Your task to perform on an android device: change the clock style Image 0: 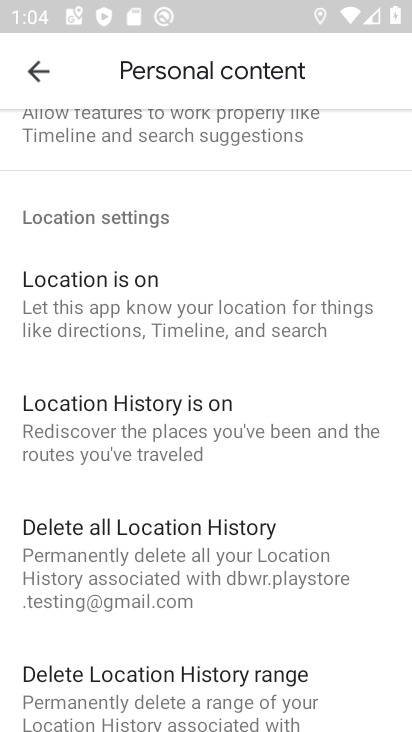
Step 0: press home button
Your task to perform on an android device: change the clock style Image 1: 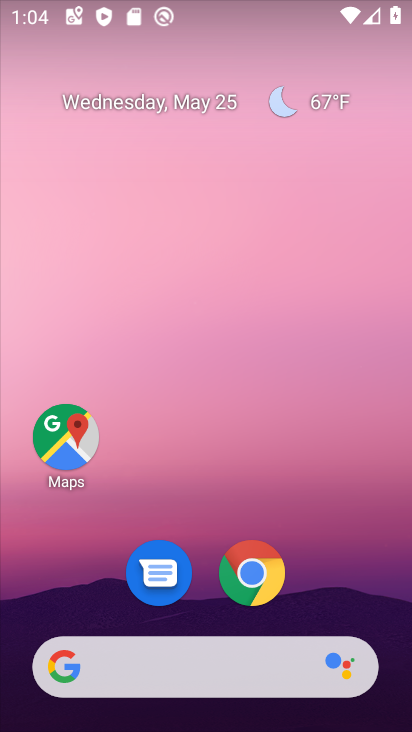
Step 1: drag from (379, 599) to (305, 89)
Your task to perform on an android device: change the clock style Image 2: 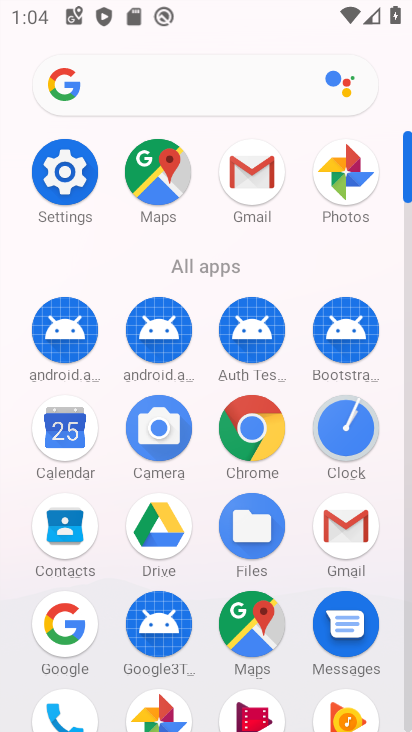
Step 2: click (409, 710)
Your task to perform on an android device: change the clock style Image 3: 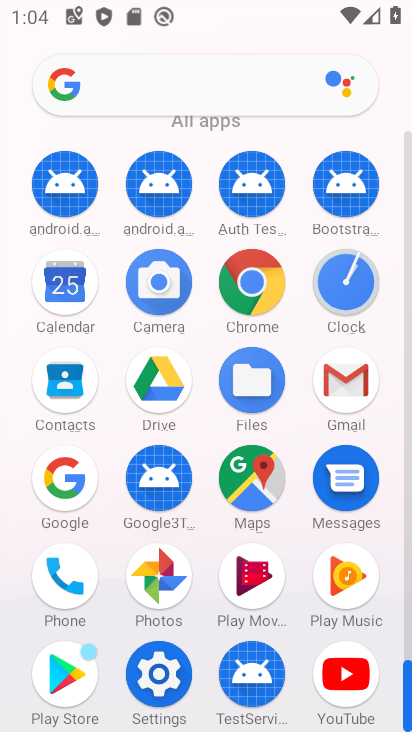
Step 3: click (345, 285)
Your task to perform on an android device: change the clock style Image 4: 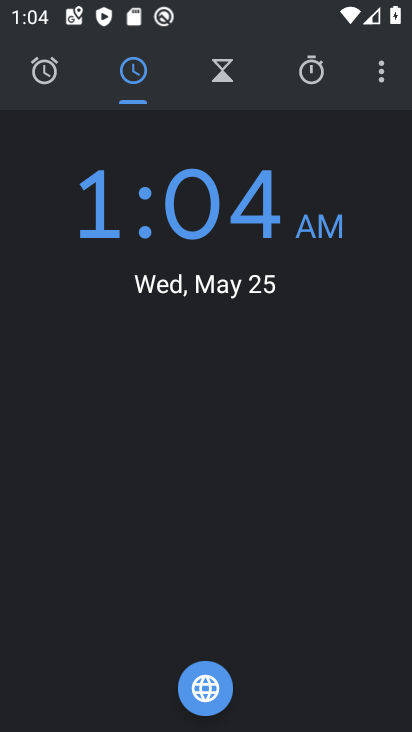
Step 4: click (380, 75)
Your task to perform on an android device: change the clock style Image 5: 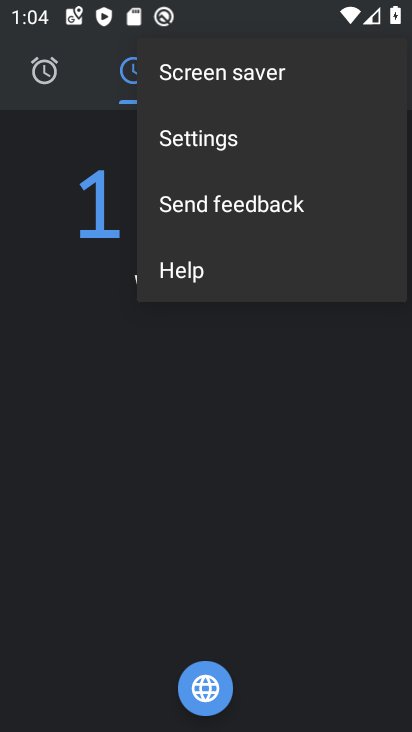
Step 5: click (200, 136)
Your task to perform on an android device: change the clock style Image 6: 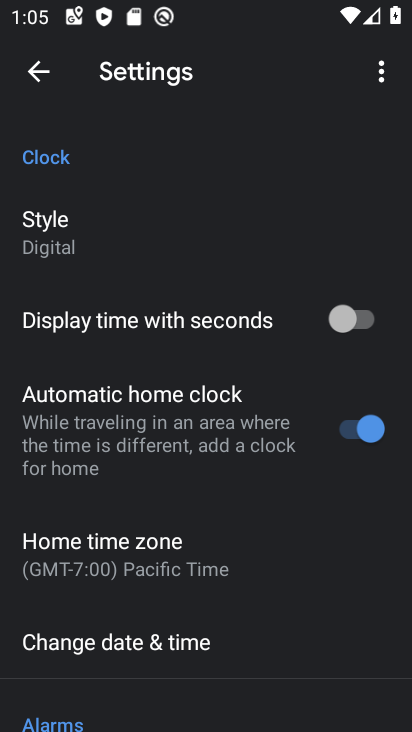
Step 6: click (31, 225)
Your task to perform on an android device: change the clock style Image 7: 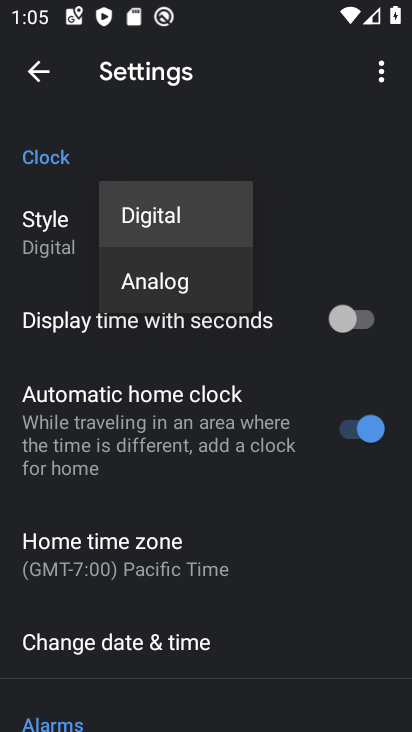
Step 7: click (148, 283)
Your task to perform on an android device: change the clock style Image 8: 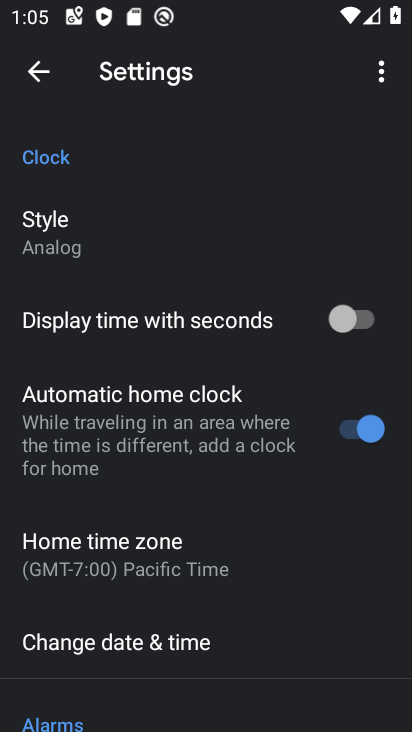
Step 8: task complete